Your task to perform on an android device: turn off translation in the chrome app Image 0: 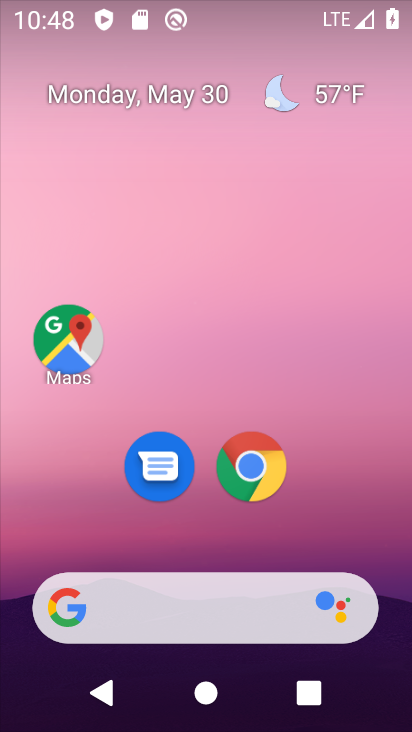
Step 0: click (215, 429)
Your task to perform on an android device: turn off translation in the chrome app Image 1: 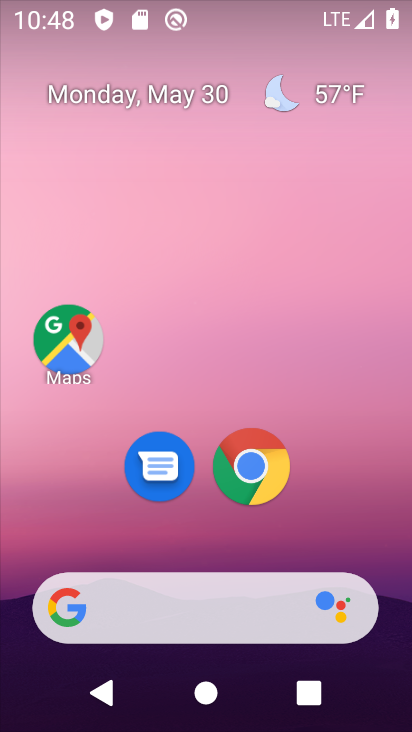
Step 1: click (247, 481)
Your task to perform on an android device: turn off translation in the chrome app Image 2: 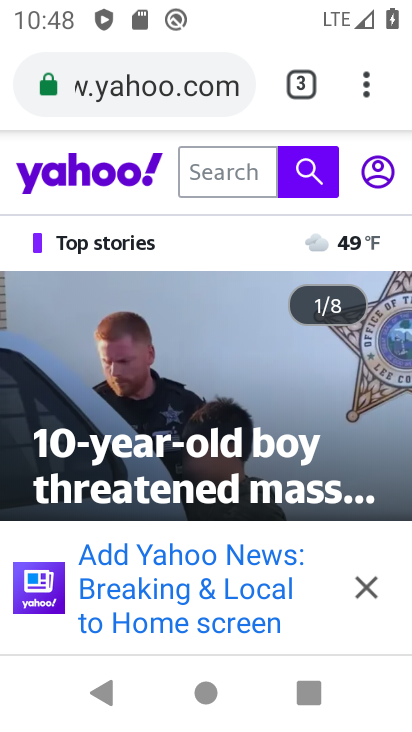
Step 2: drag from (369, 78) to (167, 506)
Your task to perform on an android device: turn off translation in the chrome app Image 3: 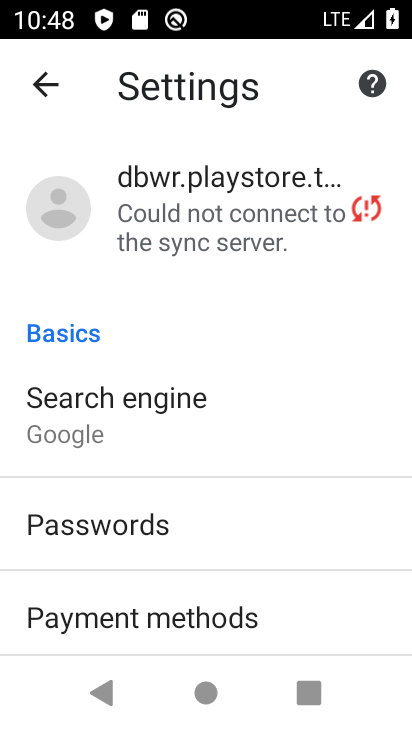
Step 3: drag from (344, 612) to (306, 65)
Your task to perform on an android device: turn off translation in the chrome app Image 4: 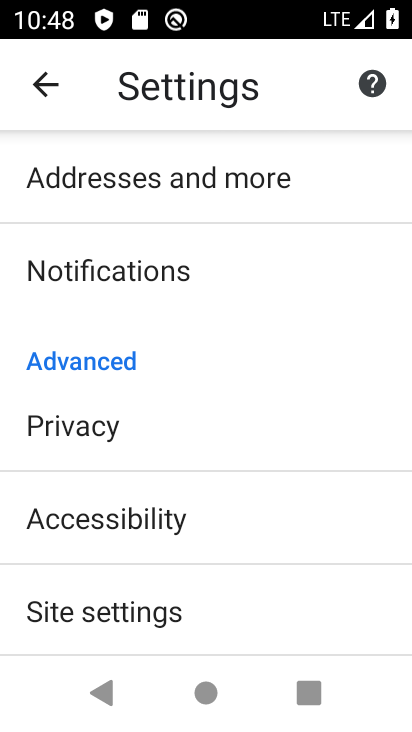
Step 4: drag from (341, 611) to (331, 218)
Your task to perform on an android device: turn off translation in the chrome app Image 5: 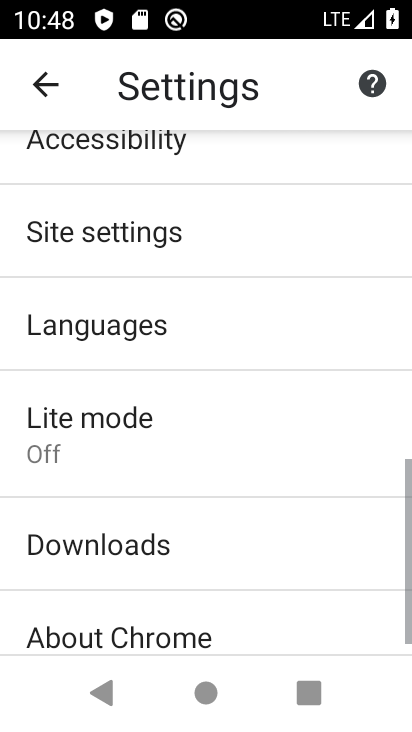
Step 5: click (137, 318)
Your task to perform on an android device: turn off translation in the chrome app Image 6: 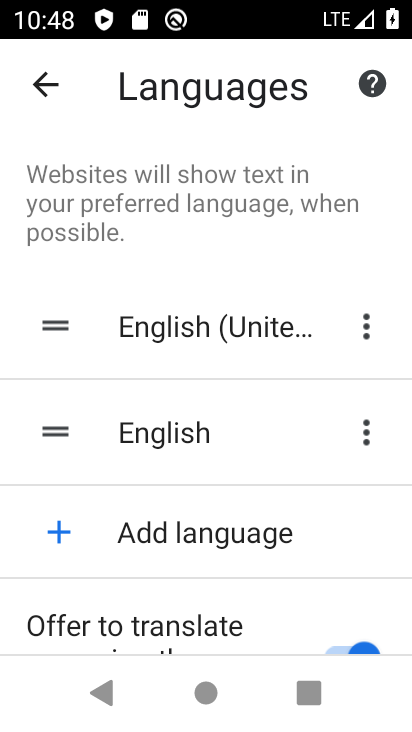
Step 6: drag from (288, 614) to (283, 451)
Your task to perform on an android device: turn off translation in the chrome app Image 7: 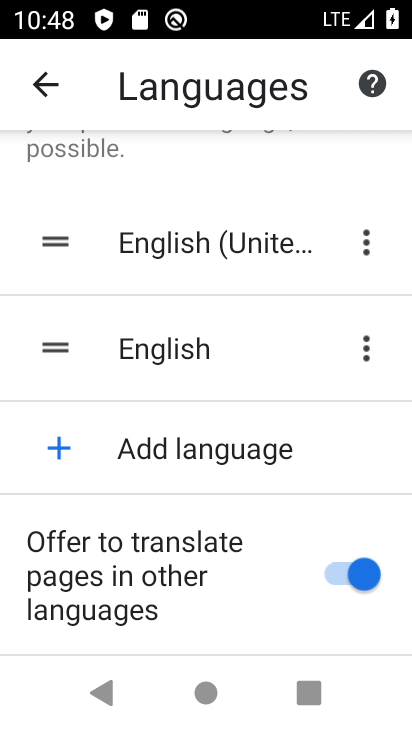
Step 7: click (342, 552)
Your task to perform on an android device: turn off translation in the chrome app Image 8: 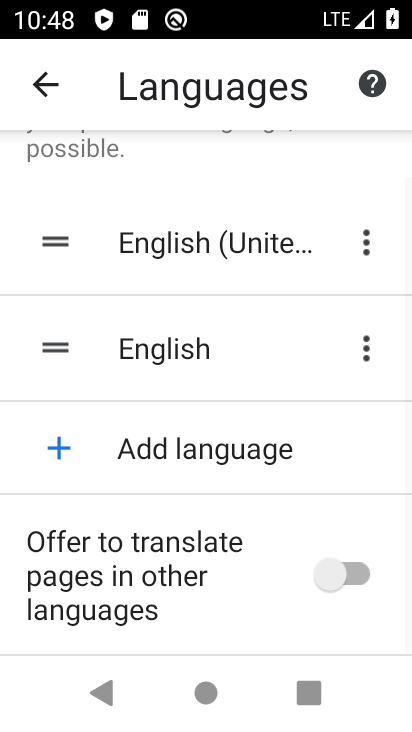
Step 8: task complete